Your task to perform on an android device: turn off notifications settings in the gmail app Image 0: 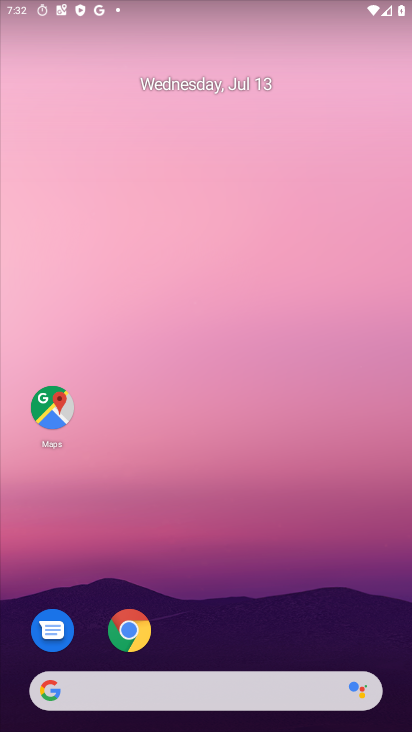
Step 0: drag from (367, 634) to (276, 19)
Your task to perform on an android device: turn off notifications settings in the gmail app Image 1: 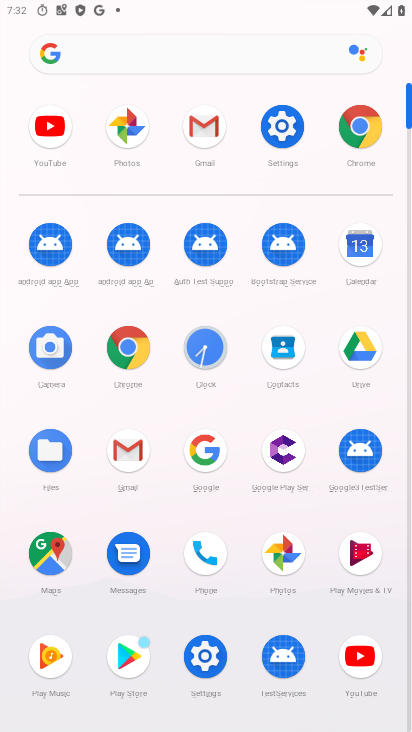
Step 1: click (204, 151)
Your task to perform on an android device: turn off notifications settings in the gmail app Image 2: 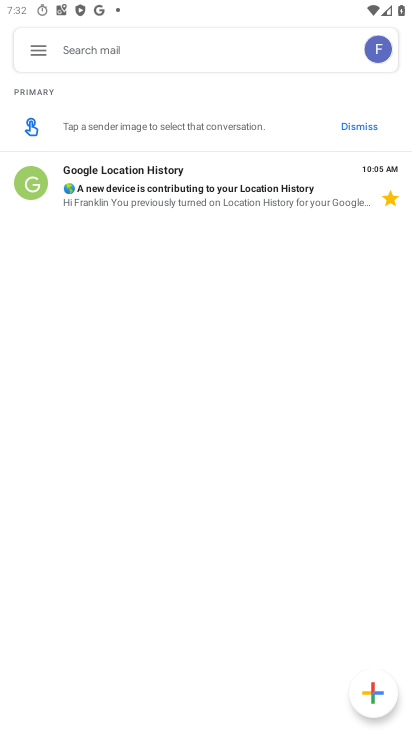
Step 2: click (43, 56)
Your task to perform on an android device: turn off notifications settings in the gmail app Image 3: 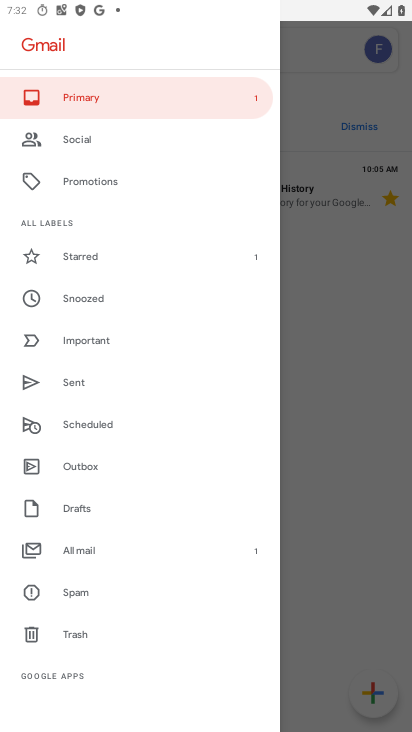
Step 3: drag from (84, 667) to (149, 116)
Your task to perform on an android device: turn off notifications settings in the gmail app Image 4: 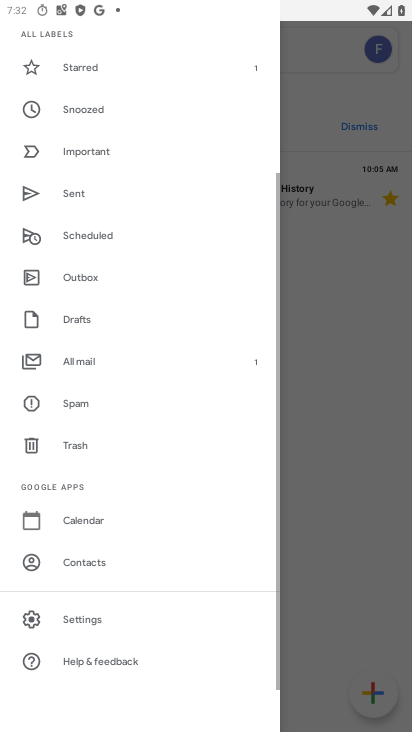
Step 4: click (97, 628)
Your task to perform on an android device: turn off notifications settings in the gmail app Image 5: 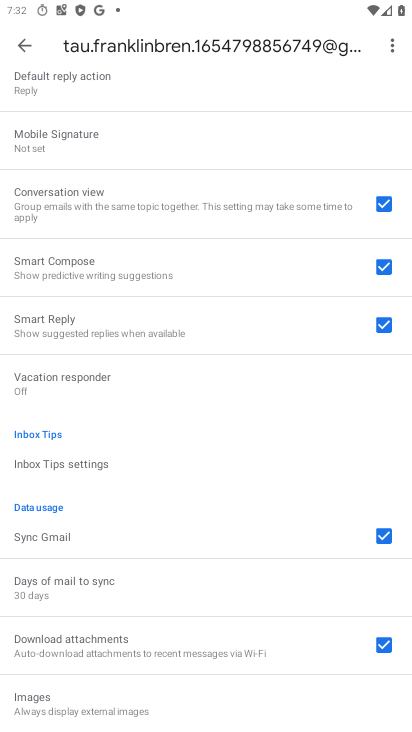
Step 5: drag from (190, 117) to (224, 718)
Your task to perform on an android device: turn off notifications settings in the gmail app Image 6: 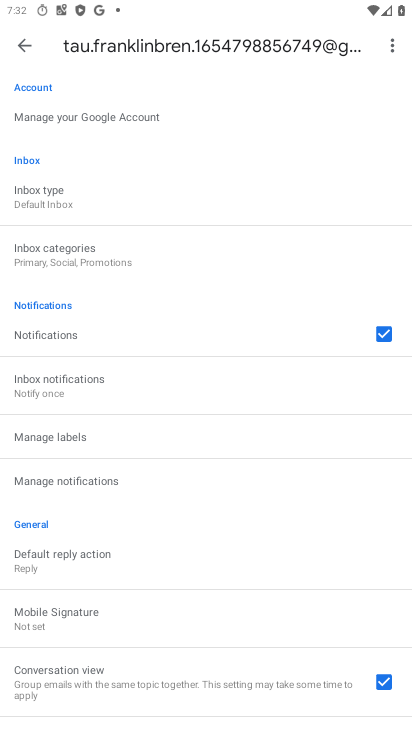
Step 6: click (296, 327)
Your task to perform on an android device: turn off notifications settings in the gmail app Image 7: 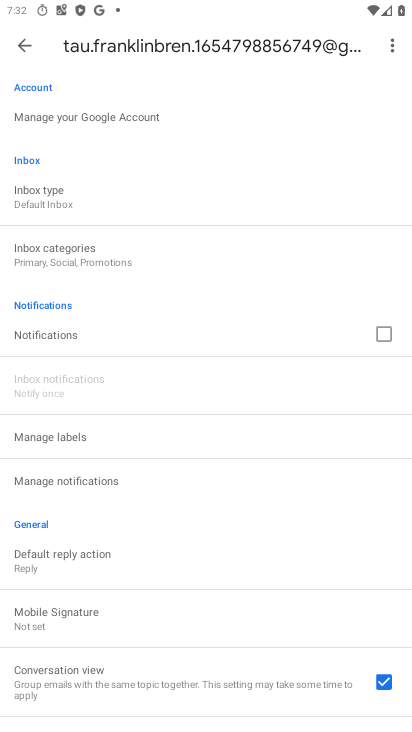
Step 7: task complete